Your task to perform on an android device: uninstall "Contacts" Image 0: 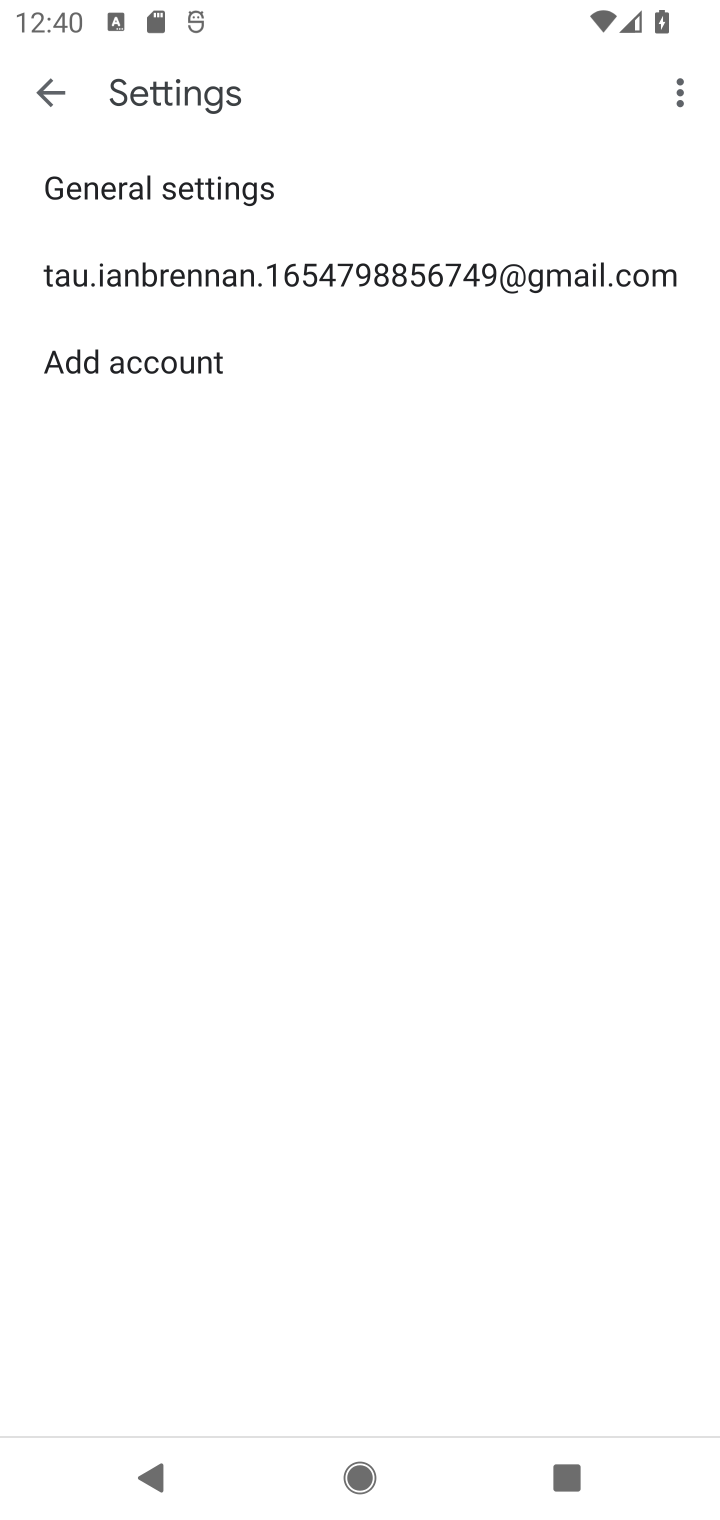
Step 0: press home button
Your task to perform on an android device: uninstall "Contacts" Image 1: 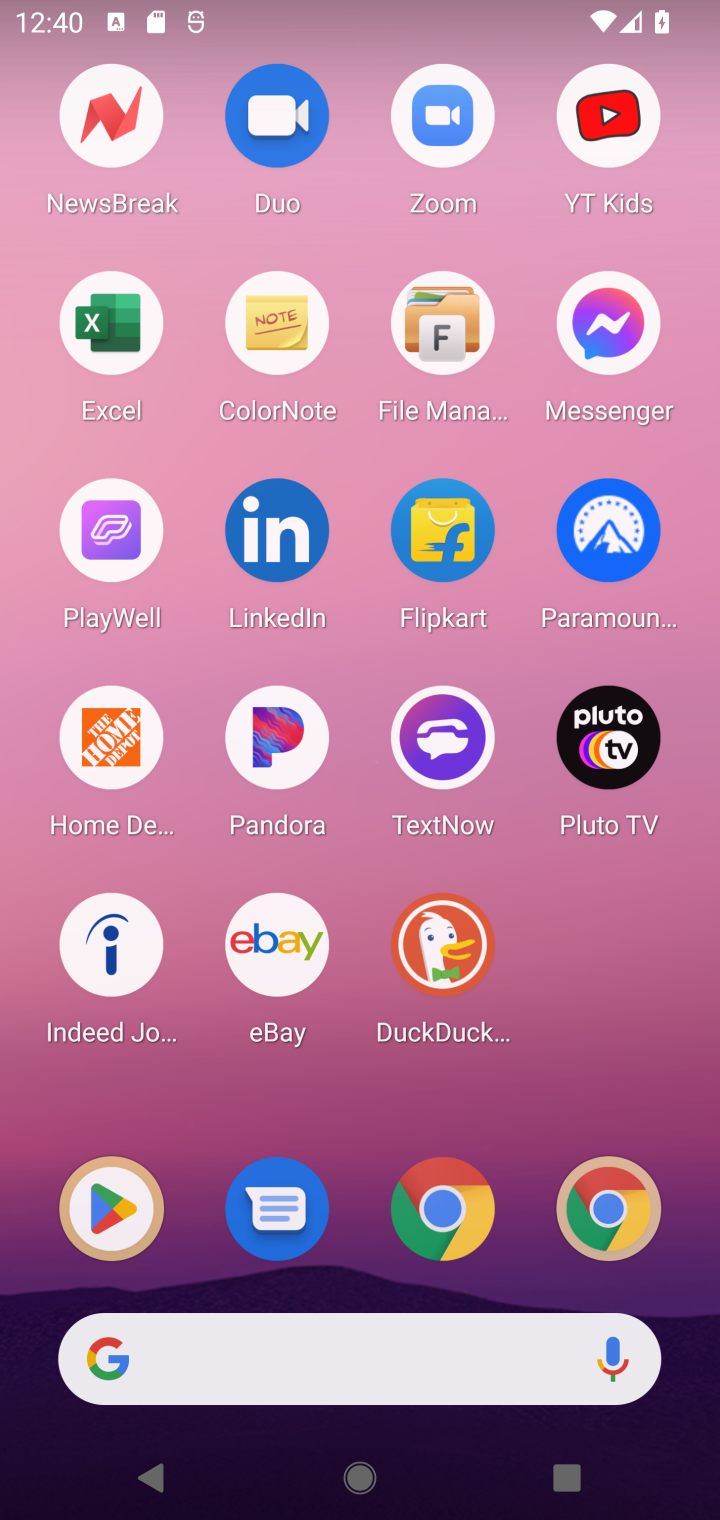
Step 1: press home button
Your task to perform on an android device: uninstall "Contacts" Image 2: 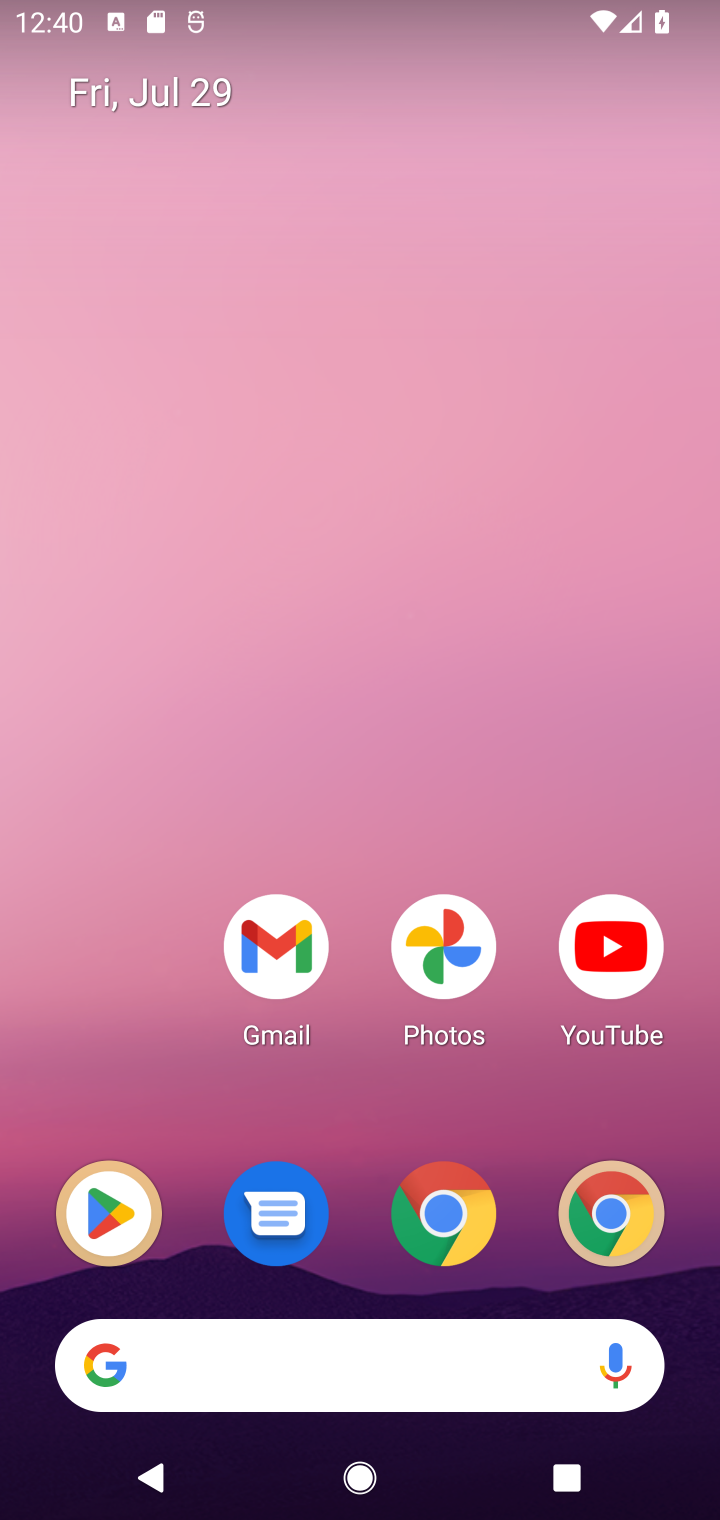
Step 2: drag from (416, 1457) to (414, 192)
Your task to perform on an android device: uninstall "Contacts" Image 3: 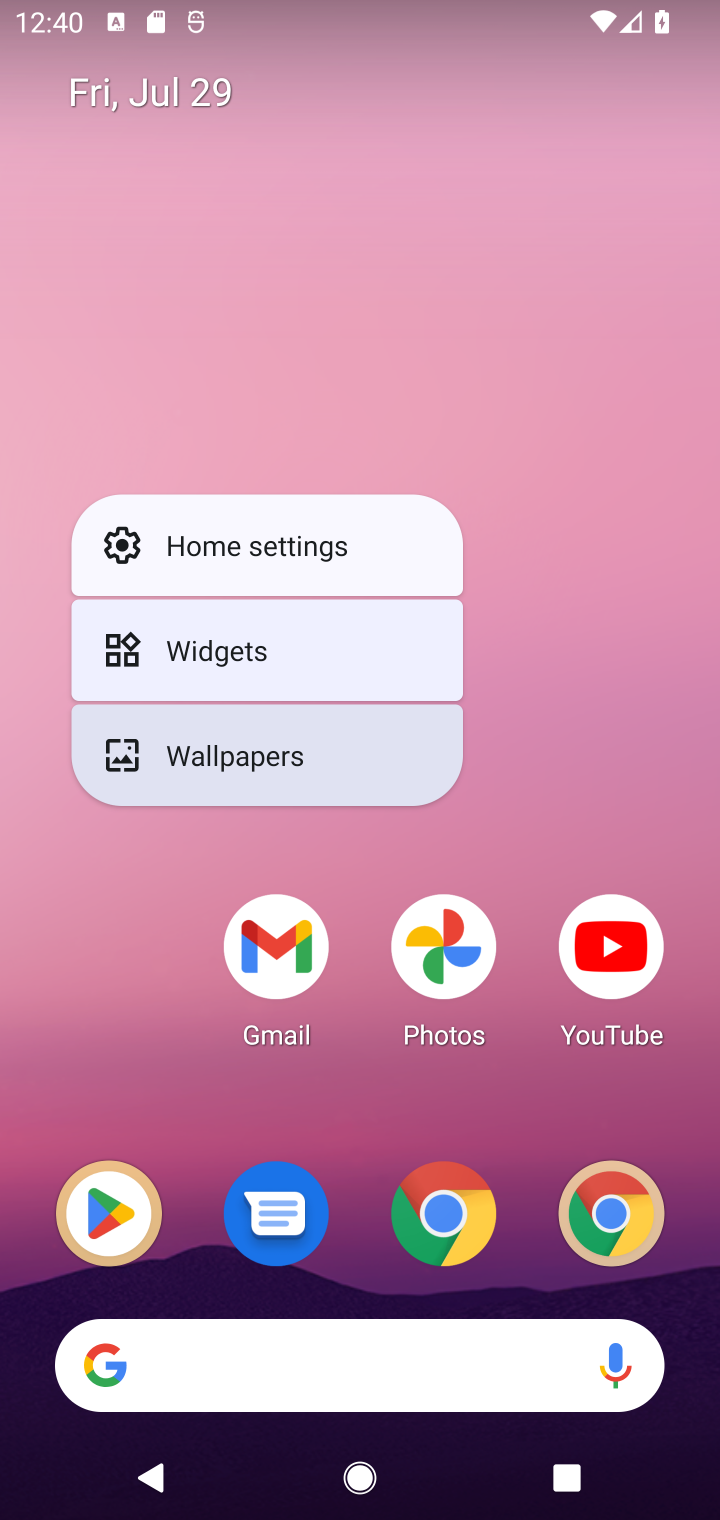
Step 3: click (462, 399)
Your task to perform on an android device: uninstall "Contacts" Image 4: 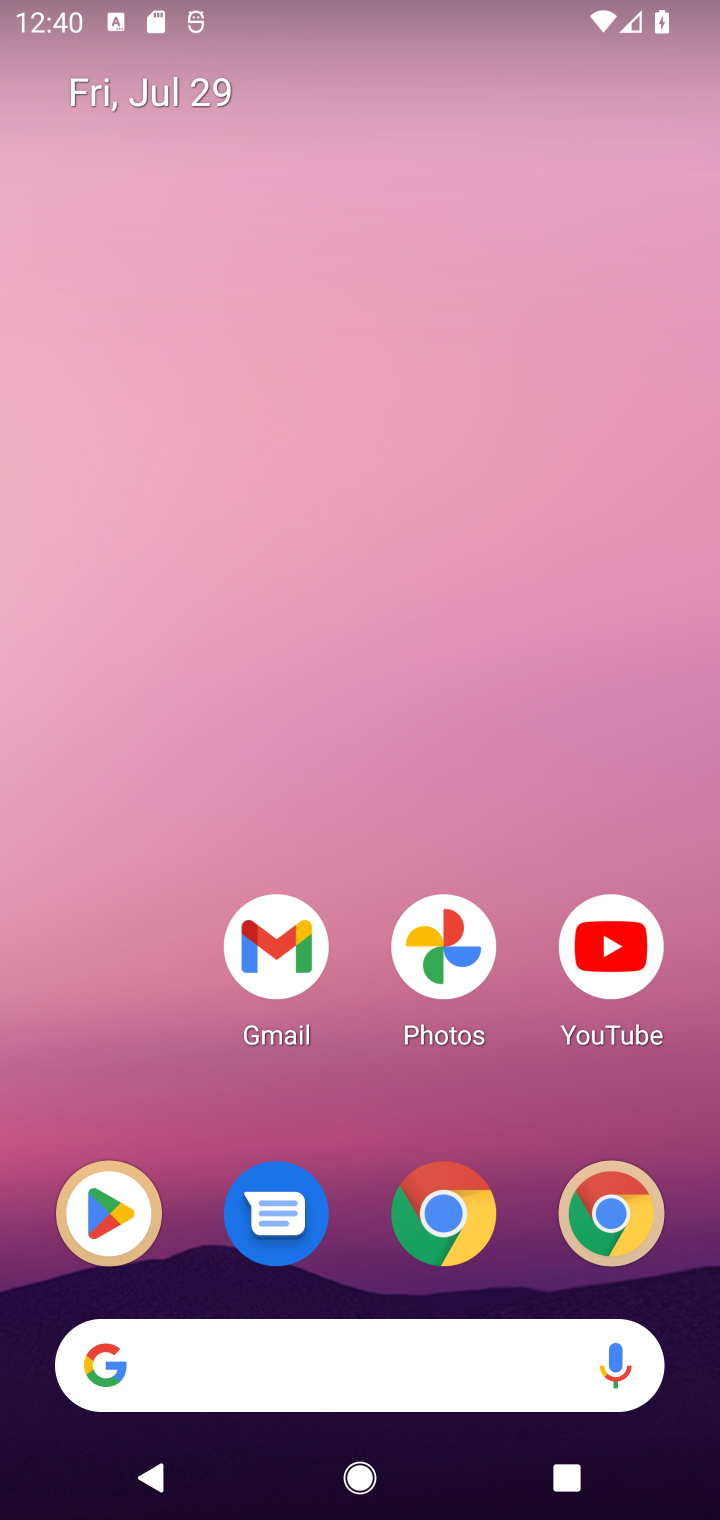
Step 4: drag from (391, 1217) to (391, 133)
Your task to perform on an android device: uninstall "Contacts" Image 5: 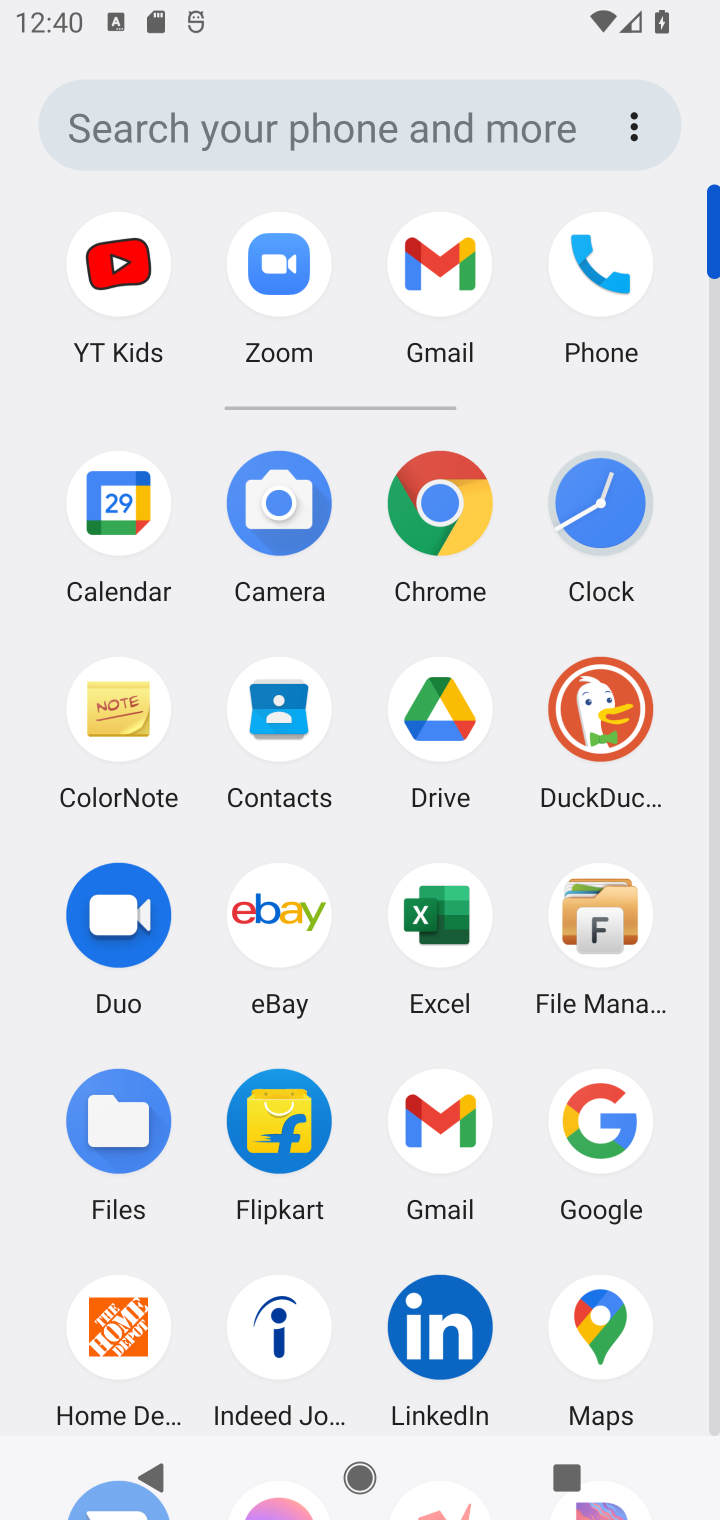
Step 5: drag from (226, 1415) to (237, 719)
Your task to perform on an android device: uninstall "Contacts" Image 6: 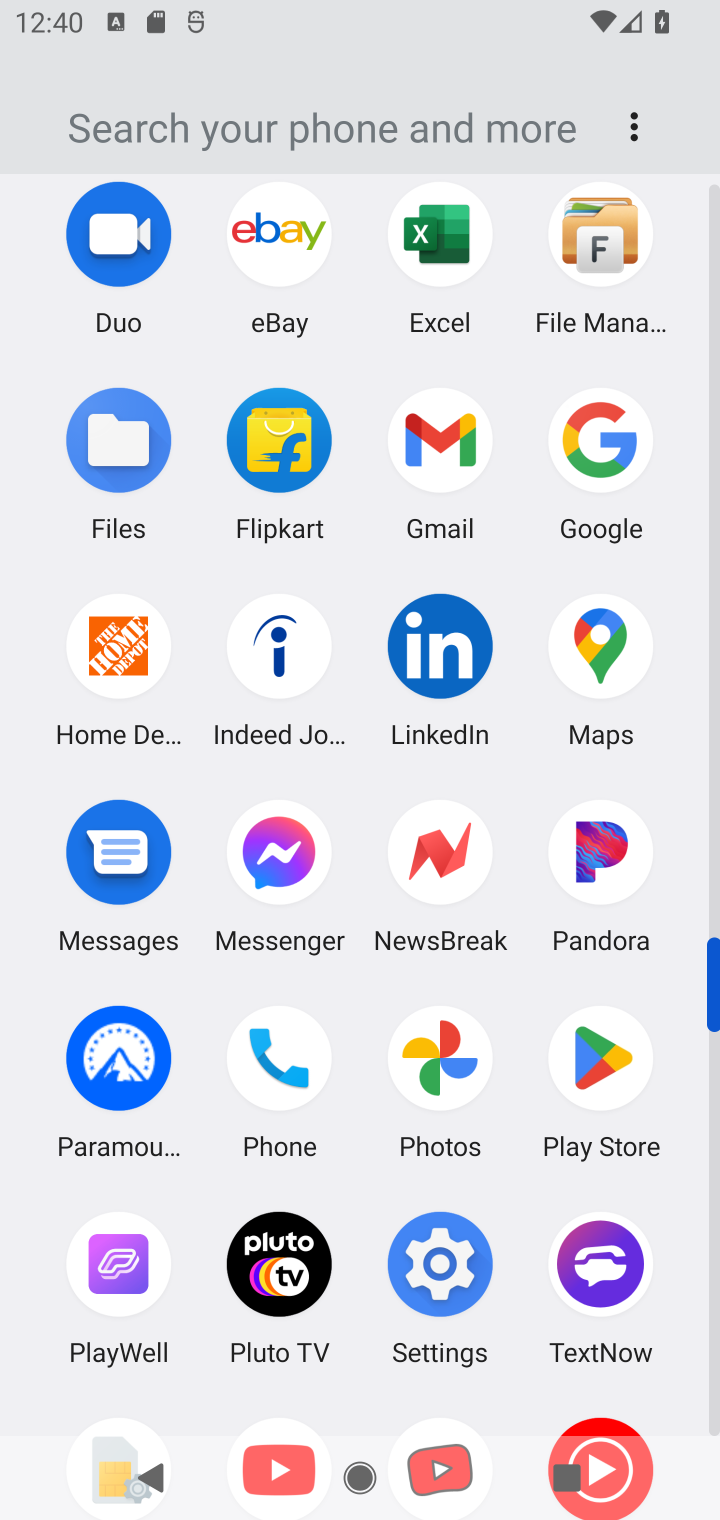
Step 6: drag from (217, 1307) to (178, 540)
Your task to perform on an android device: uninstall "Contacts" Image 7: 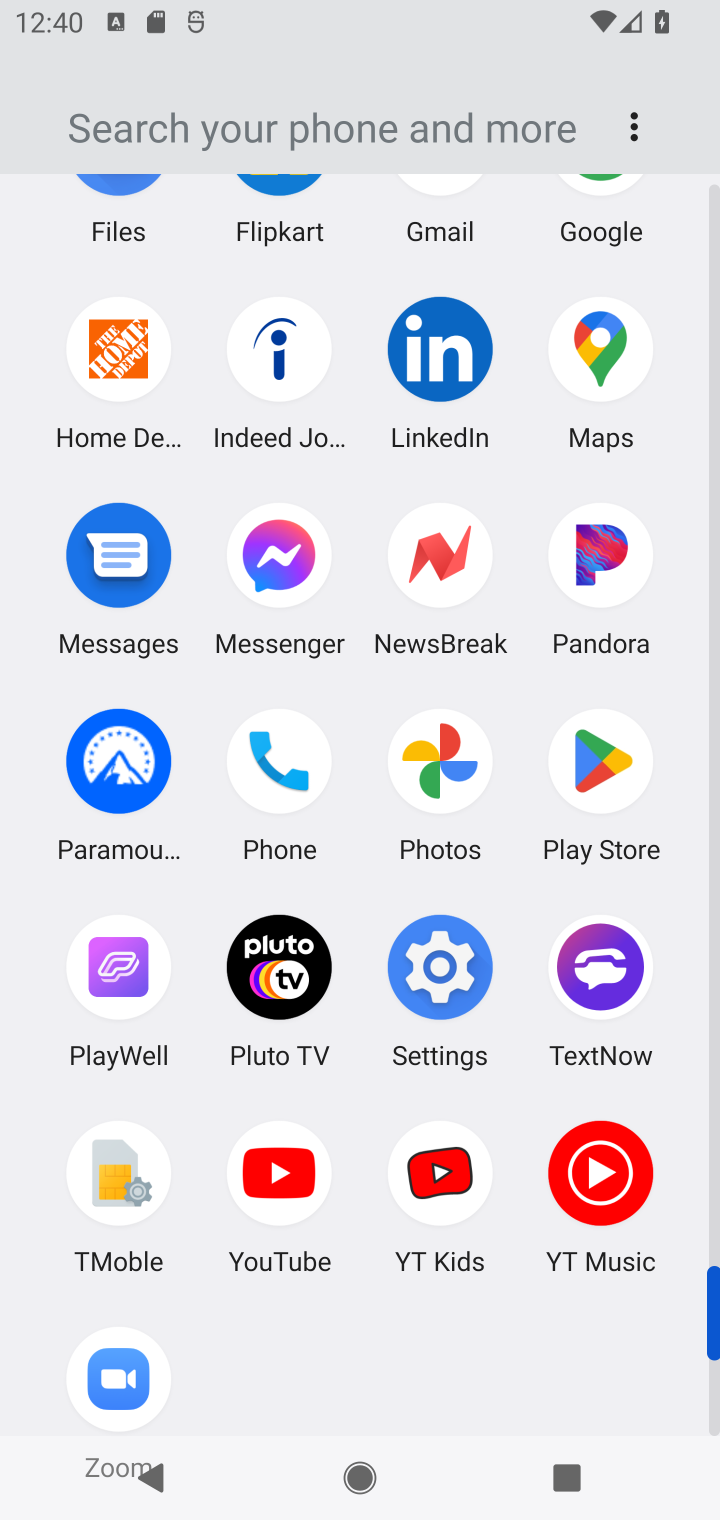
Step 7: click (607, 739)
Your task to perform on an android device: uninstall "Contacts" Image 8: 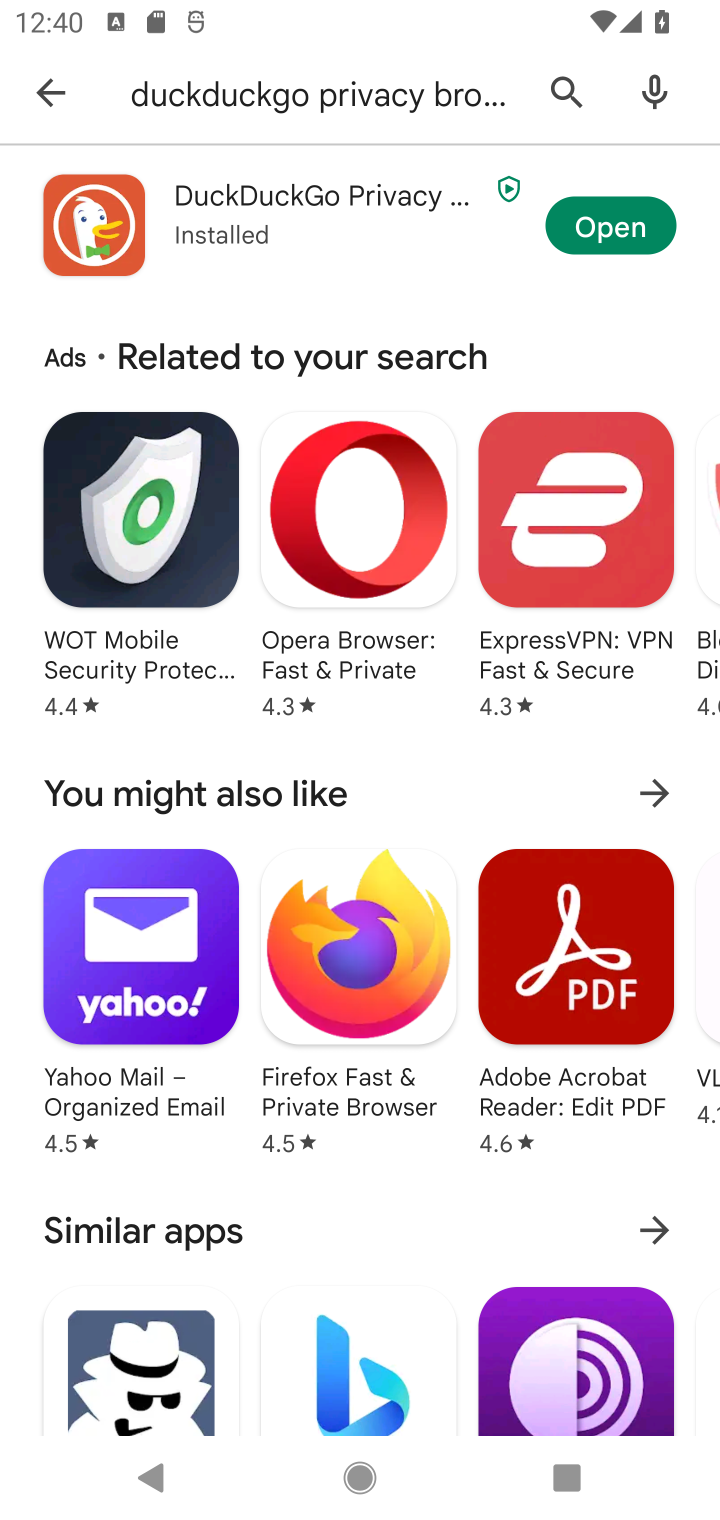
Step 8: click (567, 74)
Your task to perform on an android device: uninstall "Contacts" Image 9: 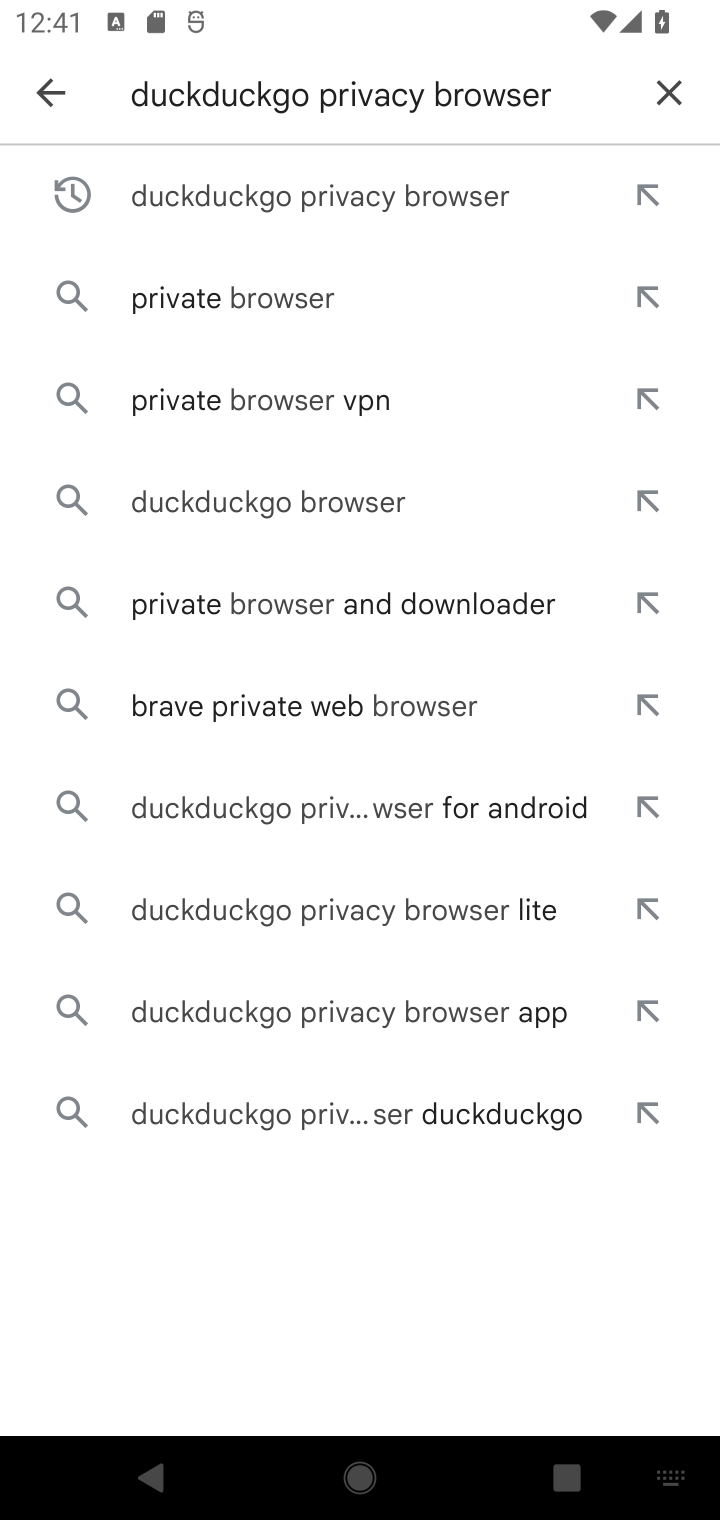
Step 9: click (664, 86)
Your task to perform on an android device: uninstall "Contacts" Image 10: 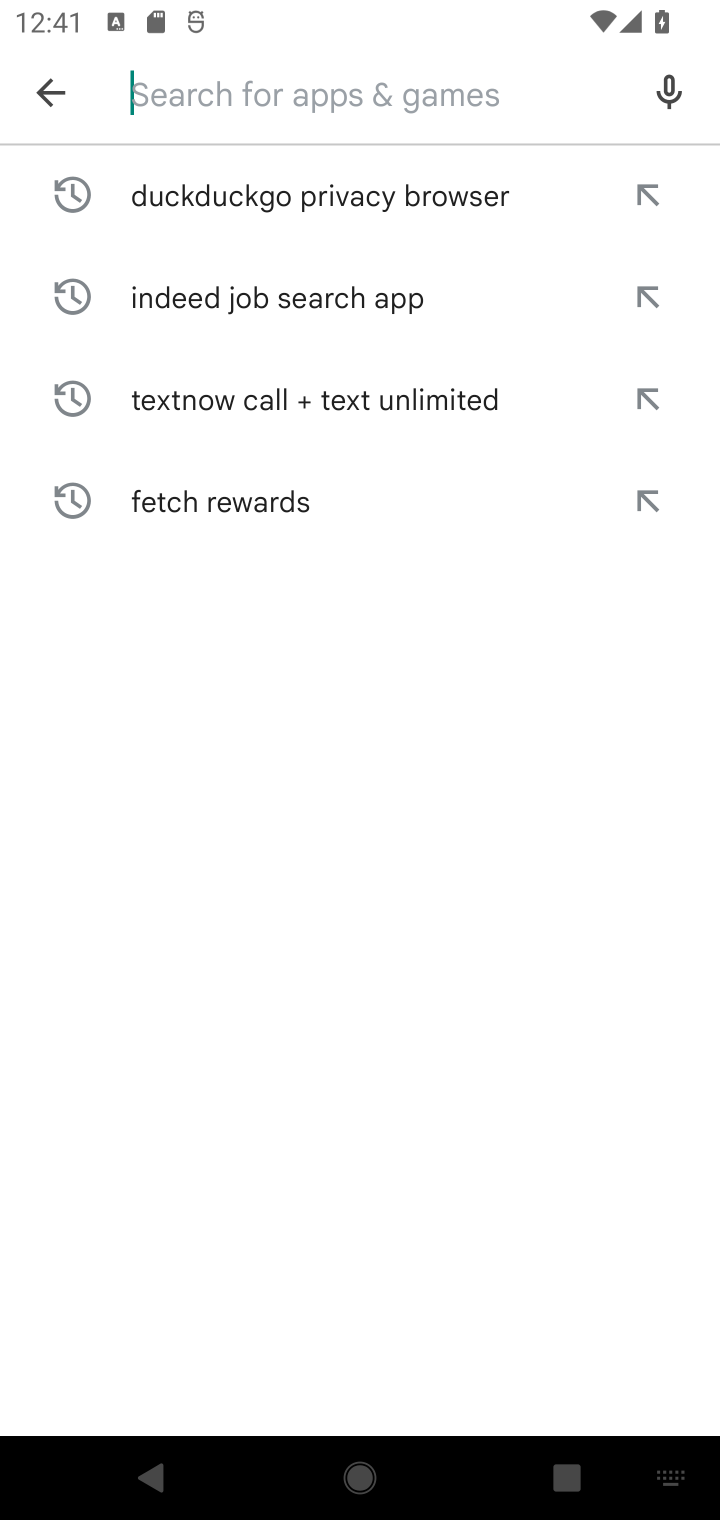
Step 10: type "Contacts"
Your task to perform on an android device: uninstall "Contacts" Image 11: 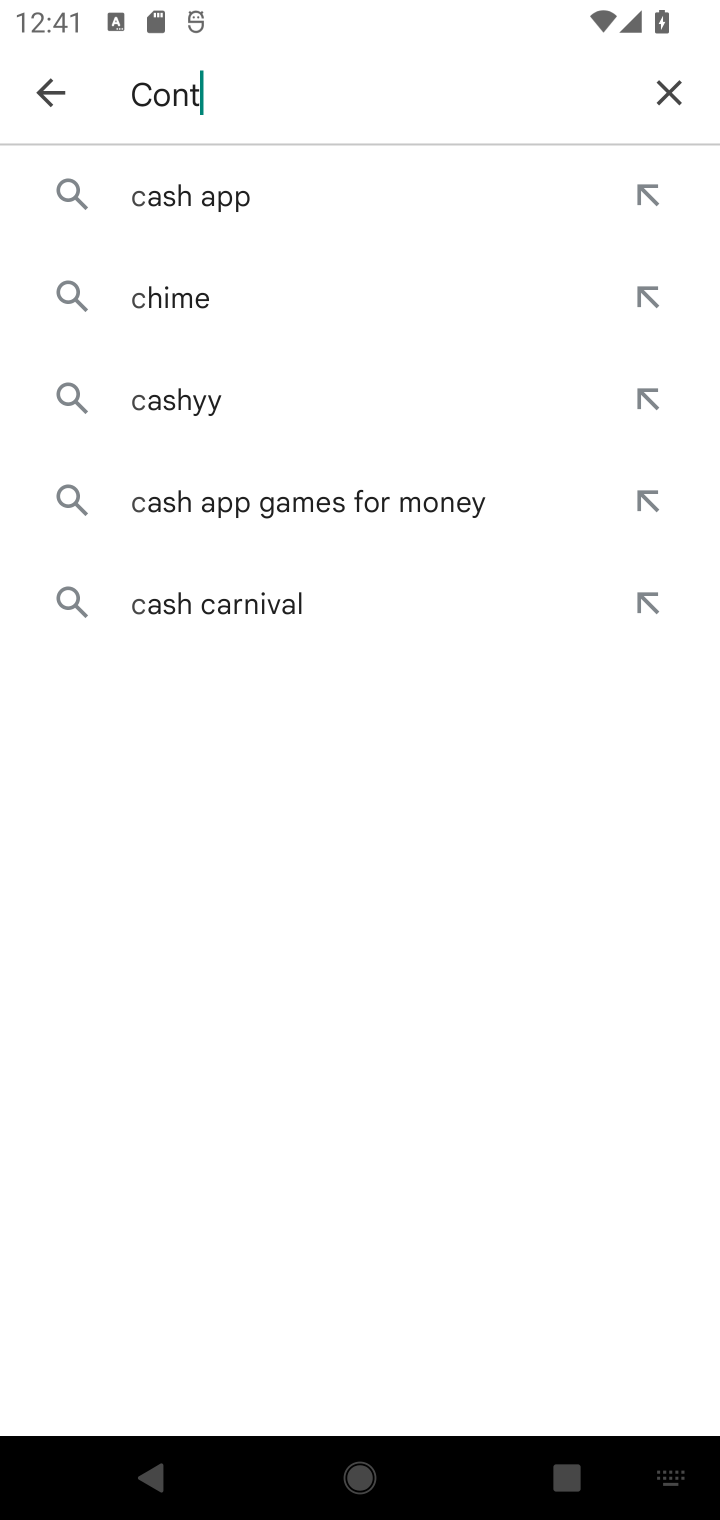
Step 11: type ""
Your task to perform on an android device: uninstall "Contacts" Image 12: 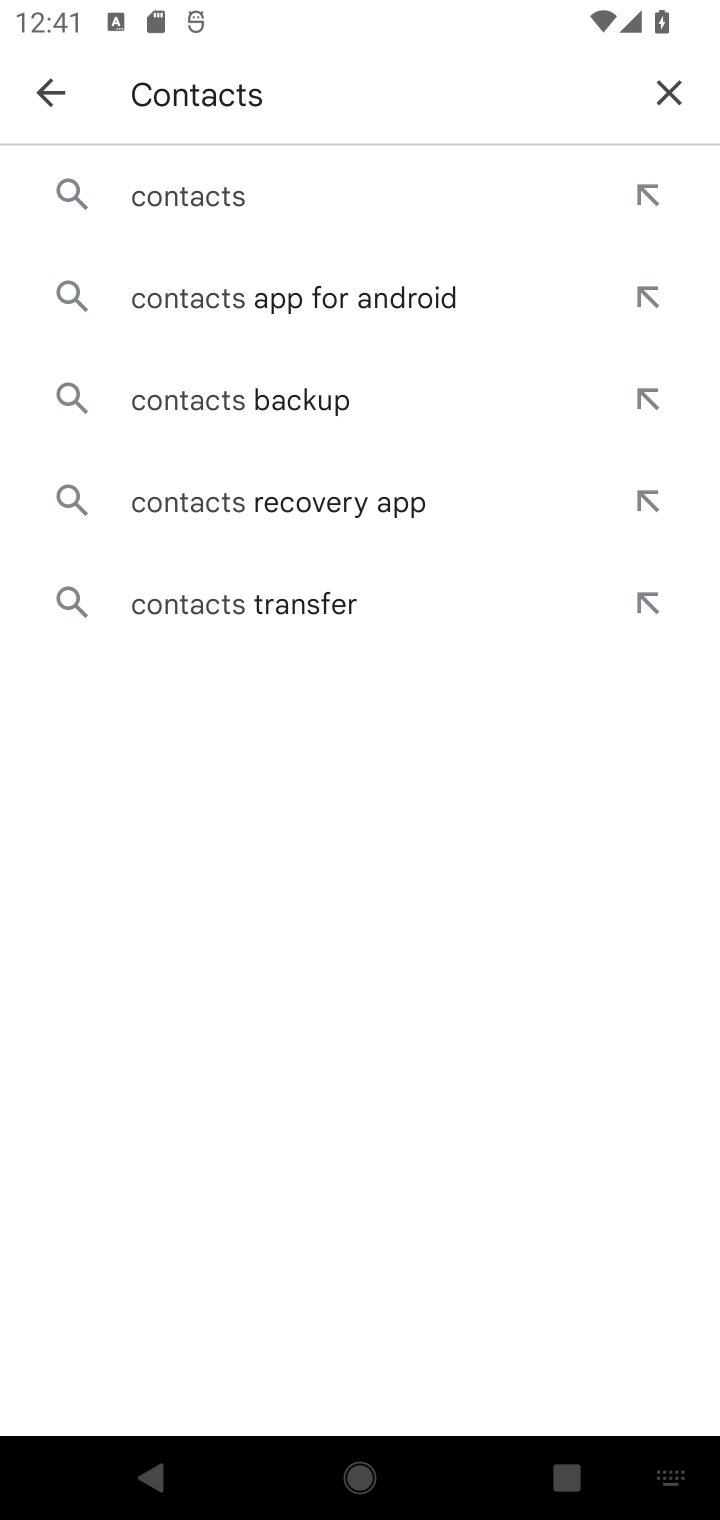
Step 12: click (201, 183)
Your task to perform on an android device: uninstall "Contacts" Image 13: 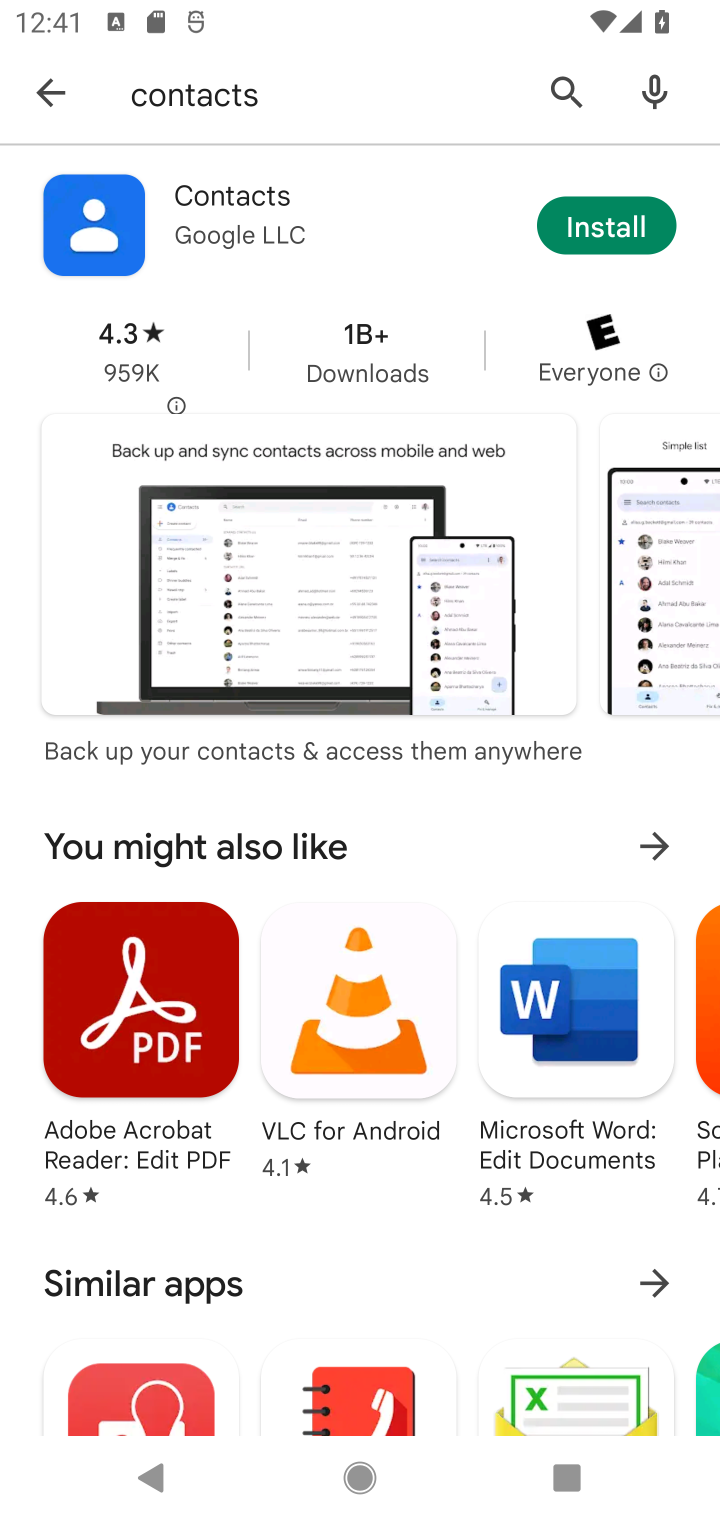
Step 13: task complete